Your task to perform on an android device: Open Google Image 0: 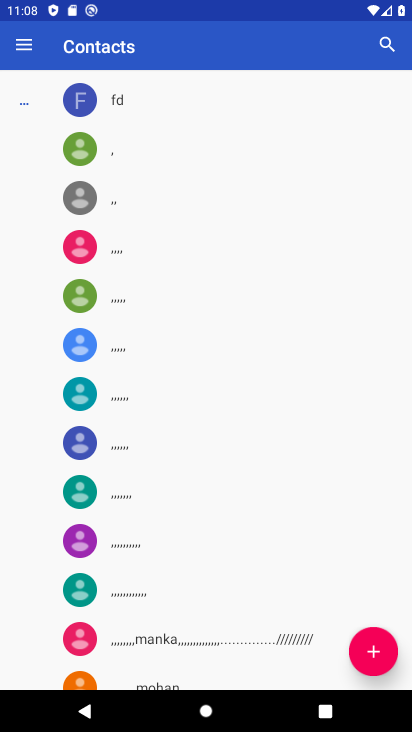
Step 0: press home button
Your task to perform on an android device: Open Google Image 1: 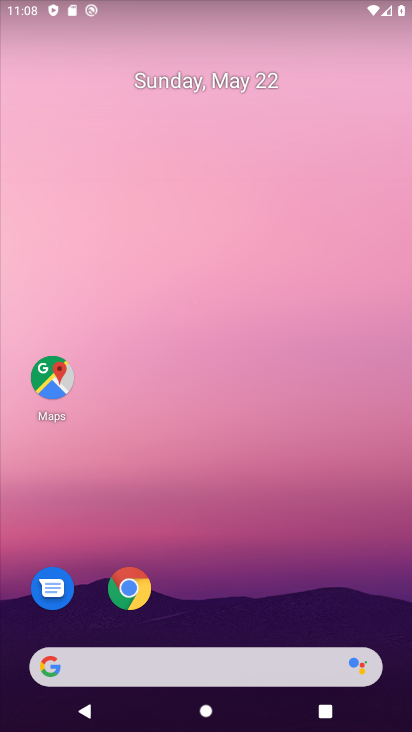
Step 1: click (162, 658)
Your task to perform on an android device: Open Google Image 2: 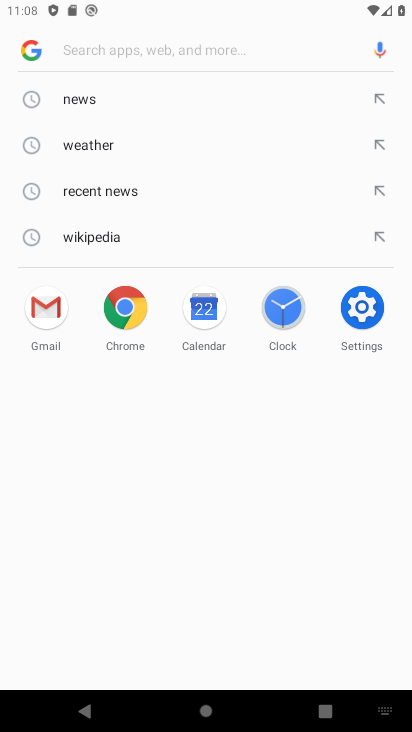
Step 2: task complete